Your task to perform on an android device: Open internet settings Image 0: 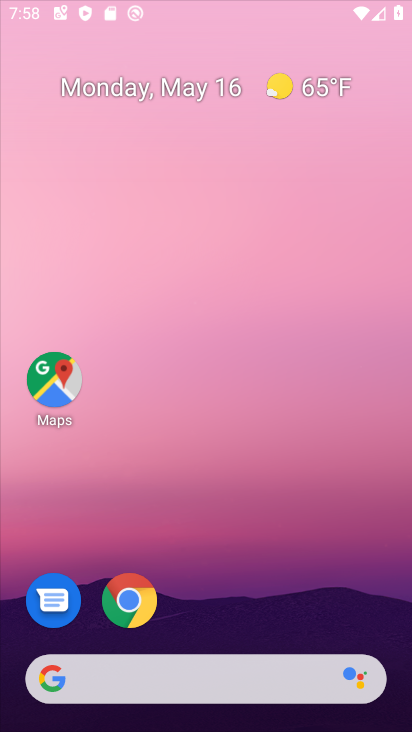
Step 0: drag from (179, 646) to (326, 81)
Your task to perform on an android device: Open internet settings Image 1: 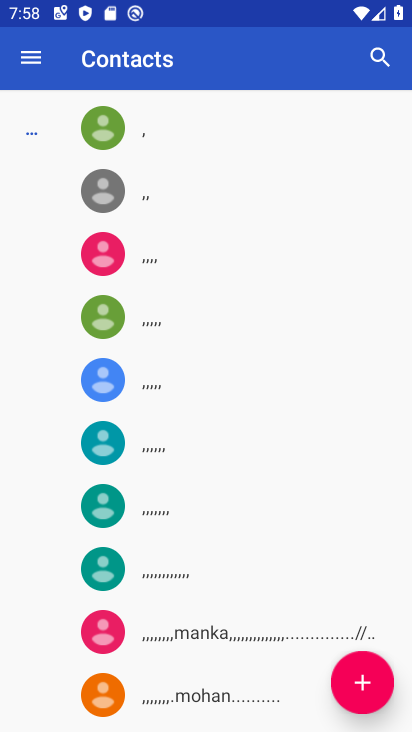
Step 1: press home button
Your task to perform on an android device: Open internet settings Image 2: 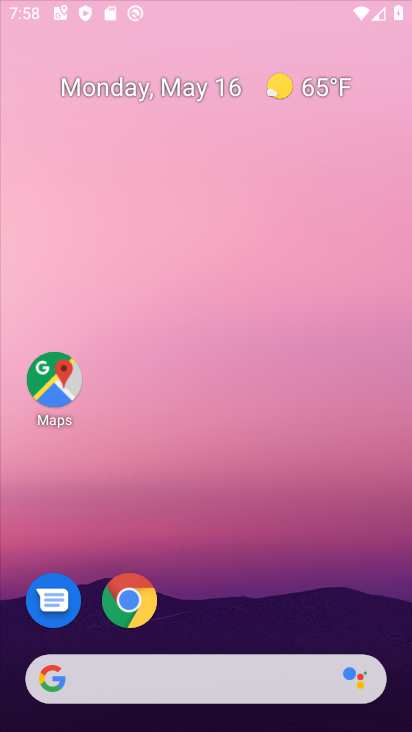
Step 2: drag from (197, 668) to (299, 34)
Your task to perform on an android device: Open internet settings Image 3: 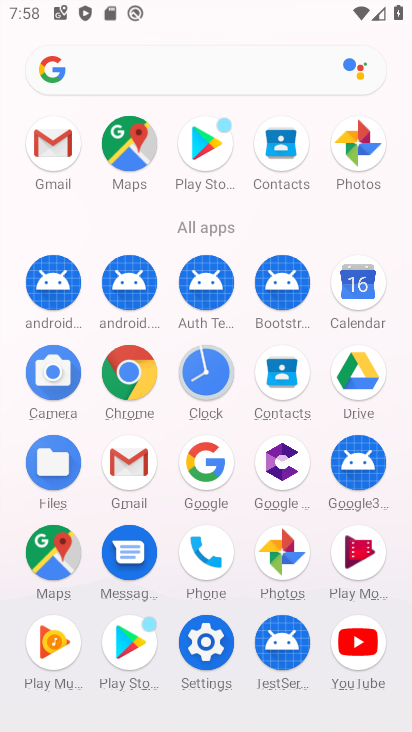
Step 3: click (216, 646)
Your task to perform on an android device: Open internet settings Image 4: 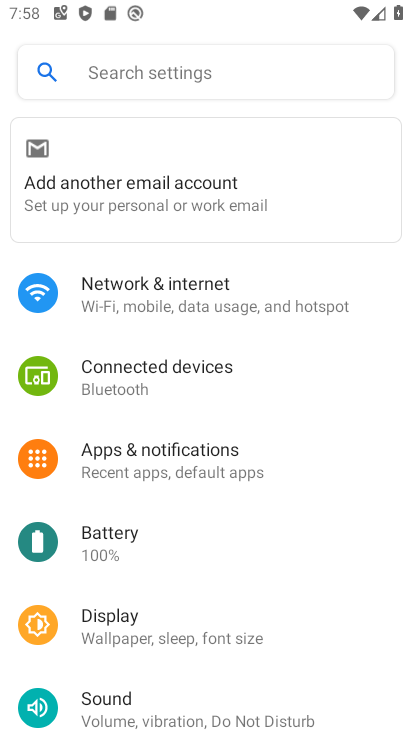
Step 4: drag from (232, 640) to (262, 383)
Your task to perform on an android device: Open internet settings Image 5: 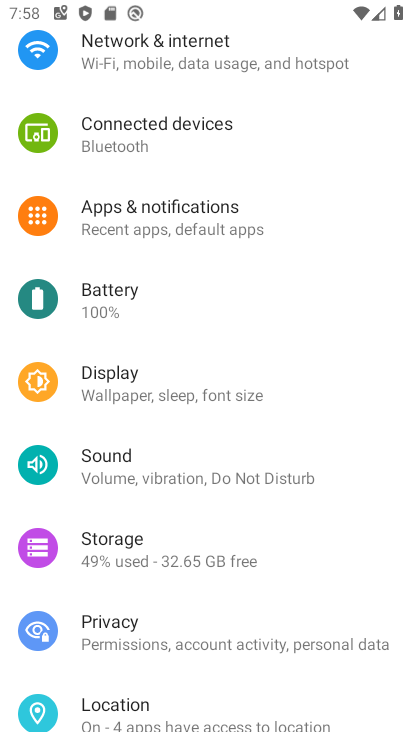
Step 5: drag from (266, 332) to (238, 545)
Your task to perform on an android device: Open internet settings Image 6: 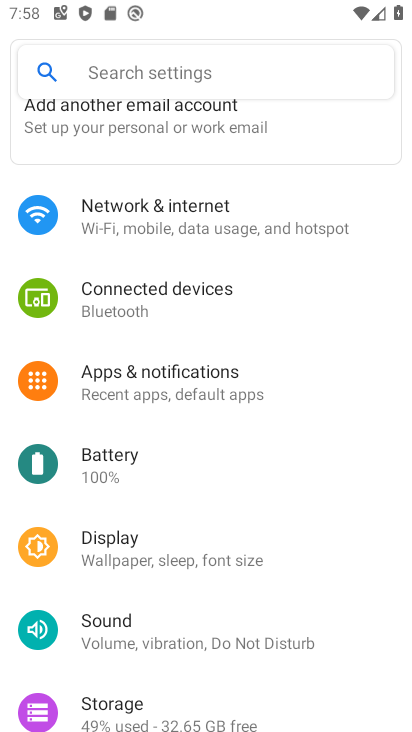
Step 6: click (82, 200)
Your task to perform on an android device: Open internet settings Image 7: 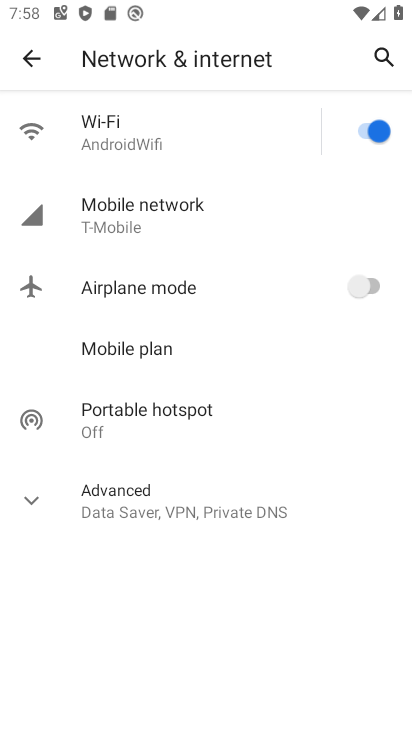
Step 7: task complete